Your task to perform on an android device: Go to settings Image 0: 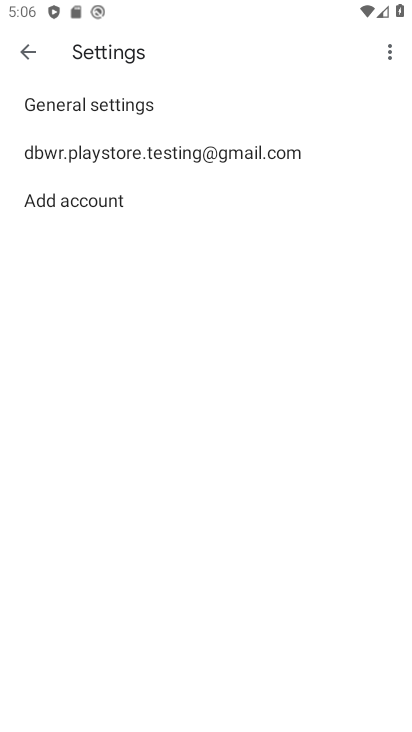
Step 0: press back button
Your task to perform on an android device: Go to settings Image 1: 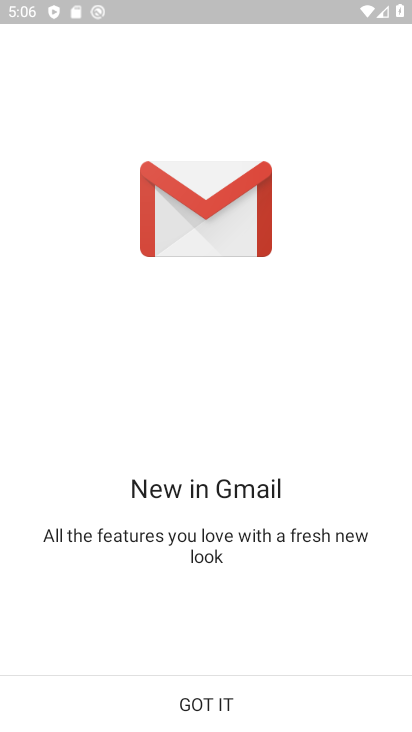
Step 1: press back button
Your task to perform on an android device: Go to settings Image 2: 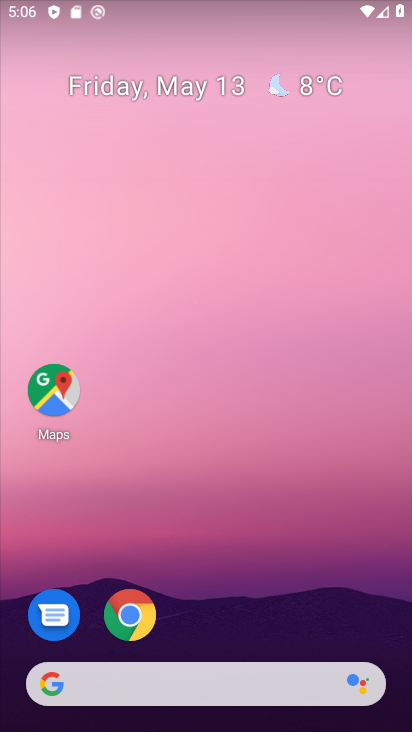
Step 2: drag from (232, 603) to (198, 21)
Your task to perform on an android device: Go to settings Image 3: 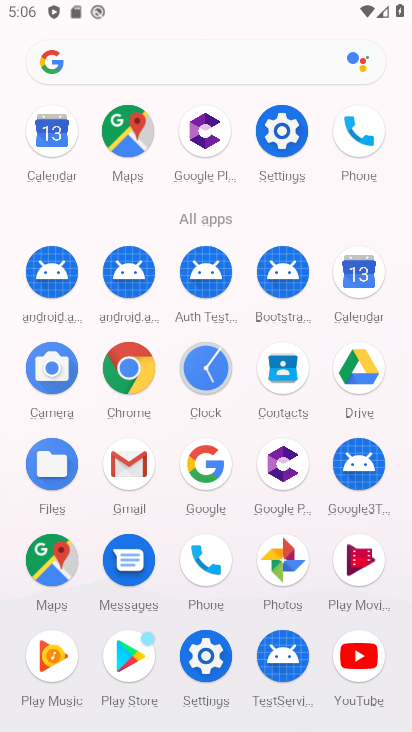
Step 3: click (277, 126)
Your task to perform on an android device: Go to settings Image 4: 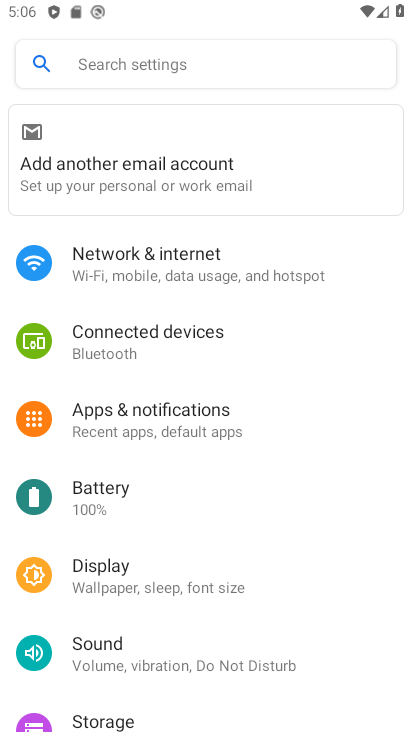
Step 4: click (222, 255)
Your task to perform on an android device: Go to settings Image 5: 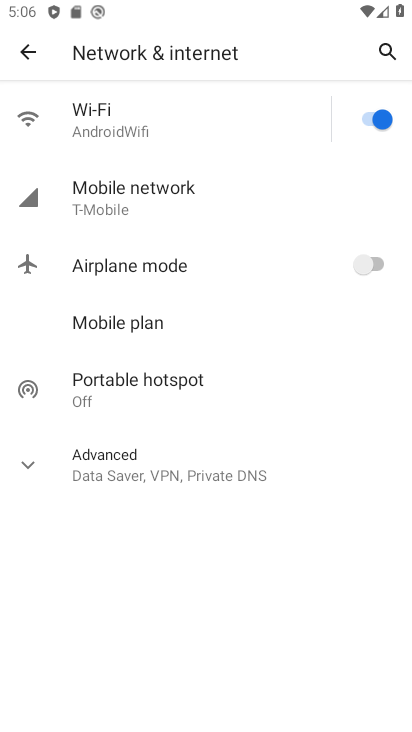
Step 5: click (24, 462)
Your task to perform on an android device: Go to settings Image 6: 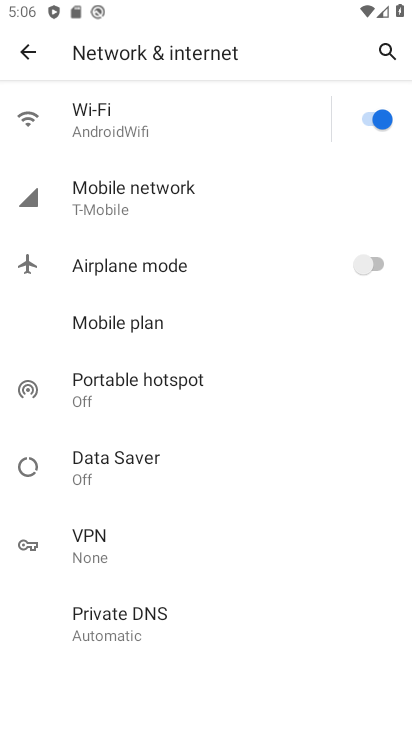
Step 6: click (32, 50)
Your task to perform on an android device: Go to settings Image 7: 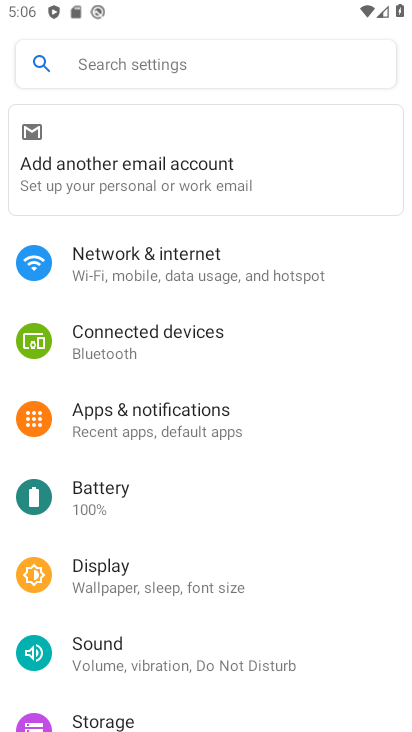
Step 7: task complete